Your task to perform on an android device: turn on priority inbox in the gmail app Image 0: 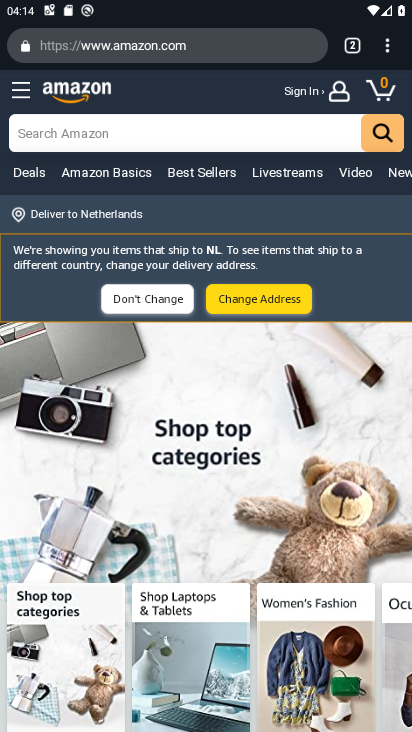
Step 0: press home button
Your task to perform on an android device: turn on priority inbox in the gmail app Image 1: 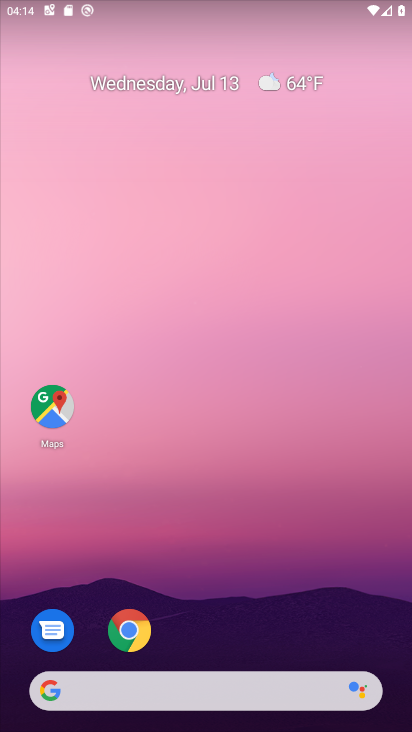
Step 1: drag from (221, 649) to (202, 170)
Your task to perform on an android device: turn on priority inbox in the gmail app Image 2: 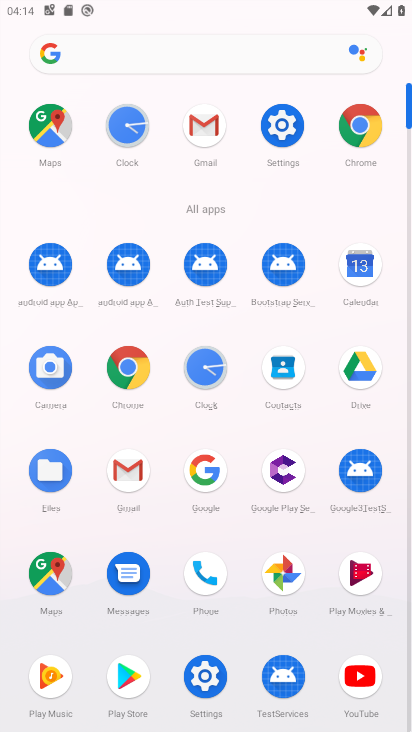
Step 2: click (215, 133)
Your task to perform on an android device: turn on priority inbox in the gmail app Image 3: 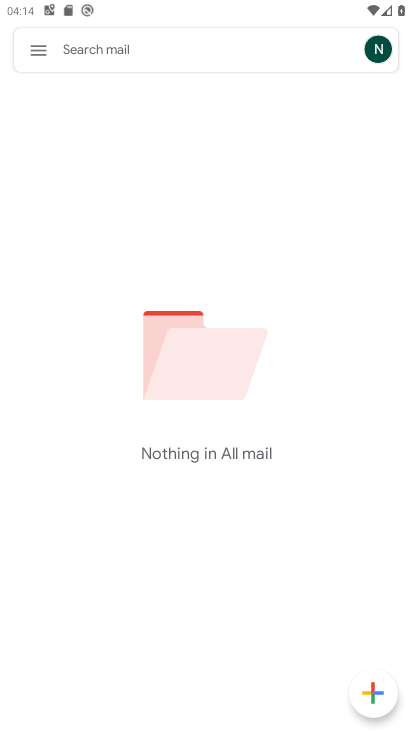
Step 3: click (43, 40)
Your task to perform on an android device: turn on priority inbox in the gmail app Image 4: 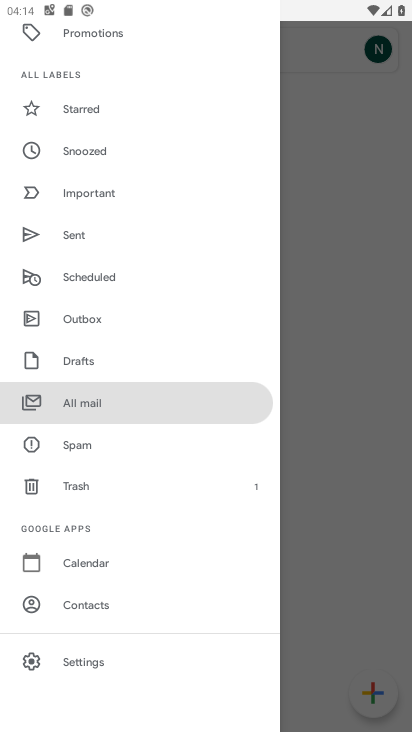
Step 4: click (87, 665)
Your task to perform on an android device: turn on priority inbox in the gmail app Image 5: 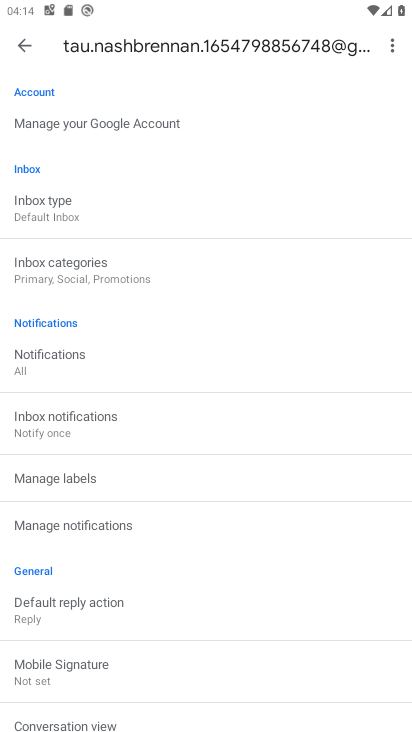
Step 5: click (114, 212)
Your task to perform on an android device: turn on priority inbox in the gmail app Image 6: 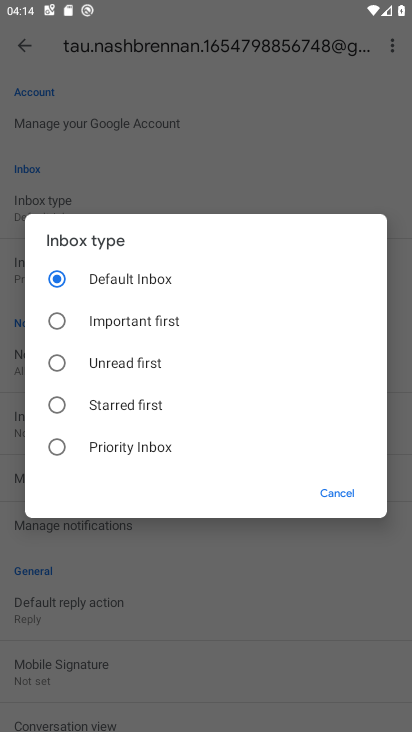
Step 6: click (160, 453)
Your task to perform on an android device: turn on priority inbox in the gmail app Image 7: 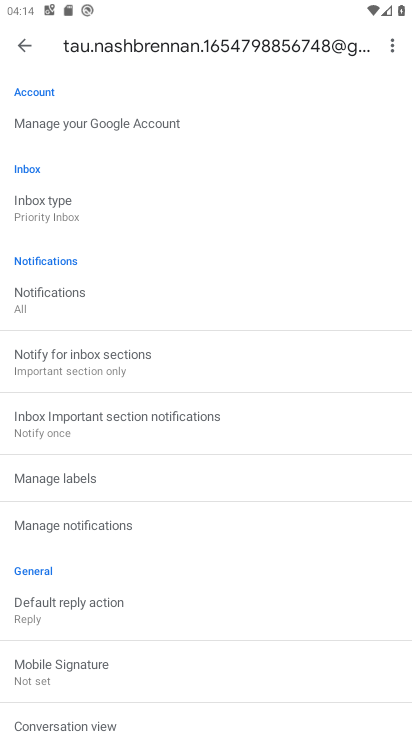
Step 7: task complete